Your task to perform on an android device: Open Google Chrome and click the shortcut for Amazon.com Image 0: 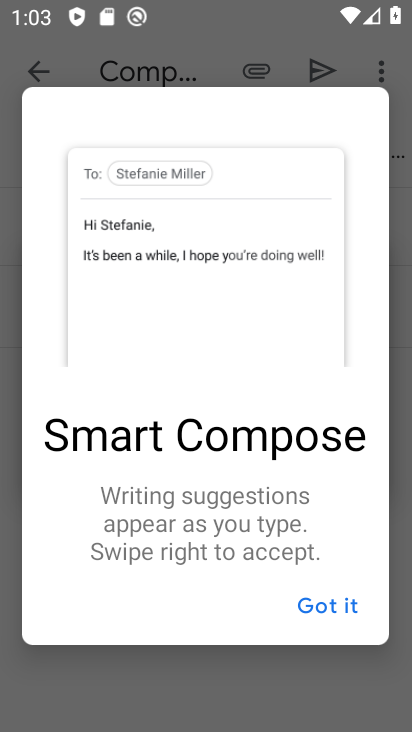
Step 0: task complete